Your task to perform on an android device: install app "Instagram" Image 0: 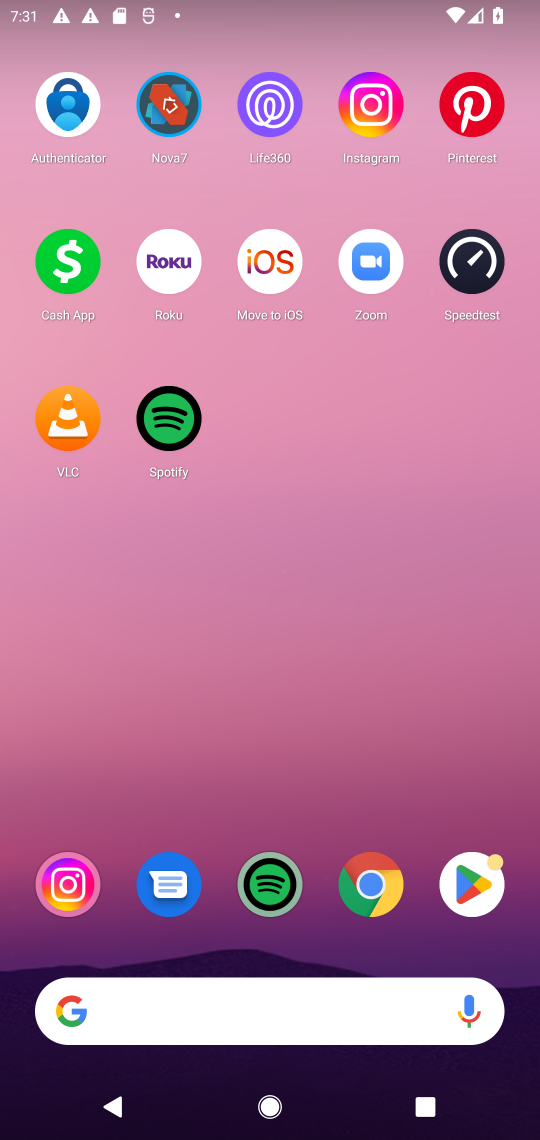
Step 0: press home button
Your task to perform on an android device: install app "Instagram" Image 1: 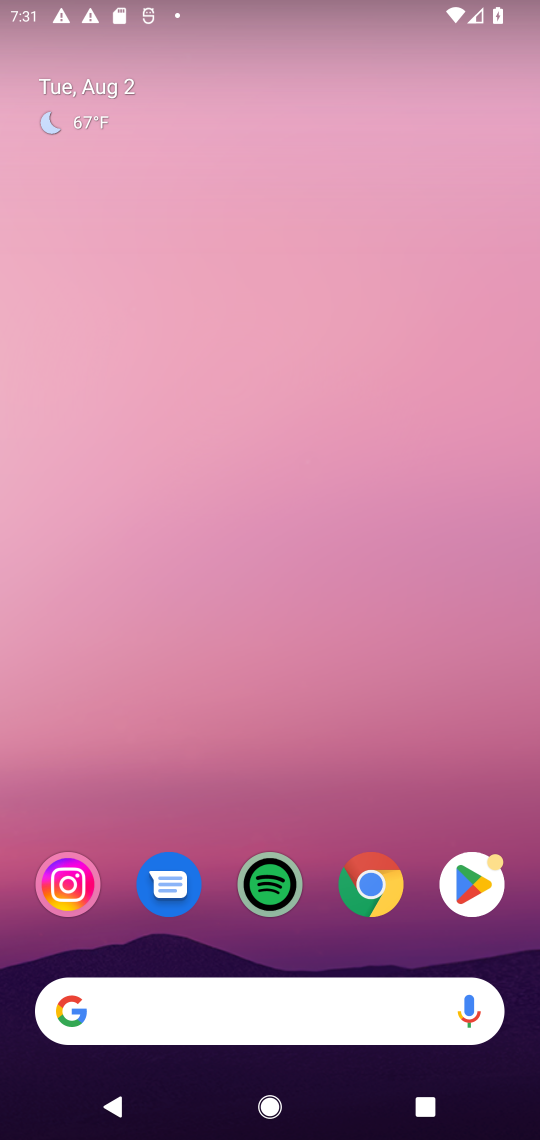
Step 1: click (477, 890)
Your task to perform on an android device: install app "Instagram" Image 2: 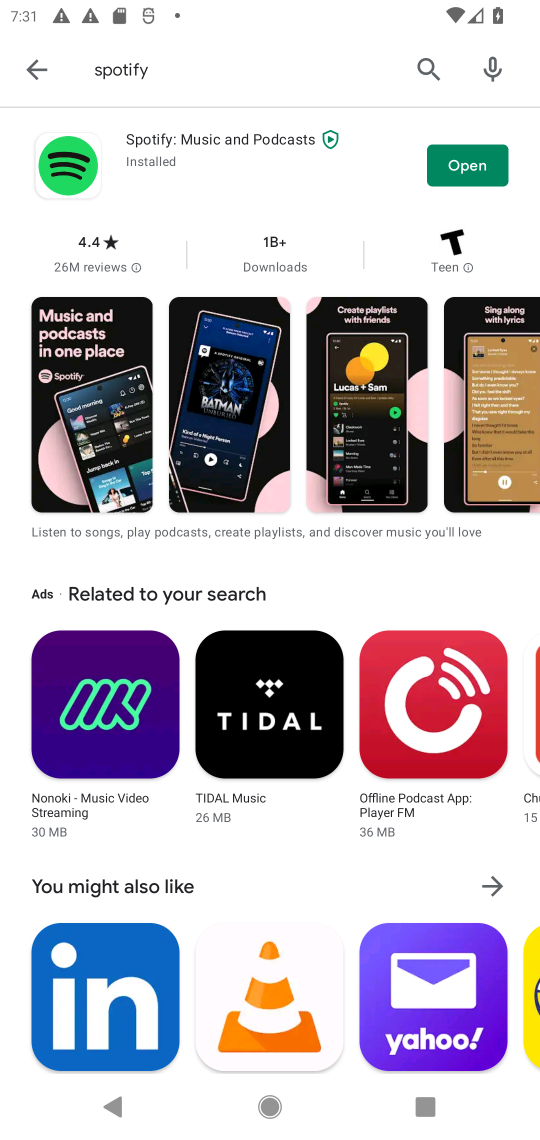
Step 2: click (398, 77)
Your task to perform on an android device: install app "Instagram" Image 3: 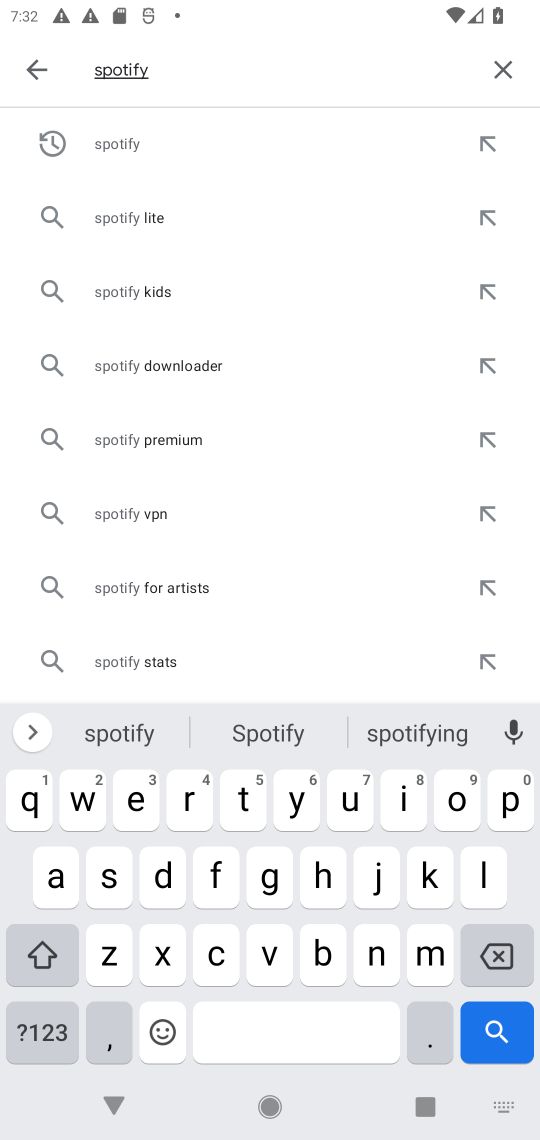
Step 3: click (500, 73)
Your task to perform on an android device: install app "Instagram" Image 4: 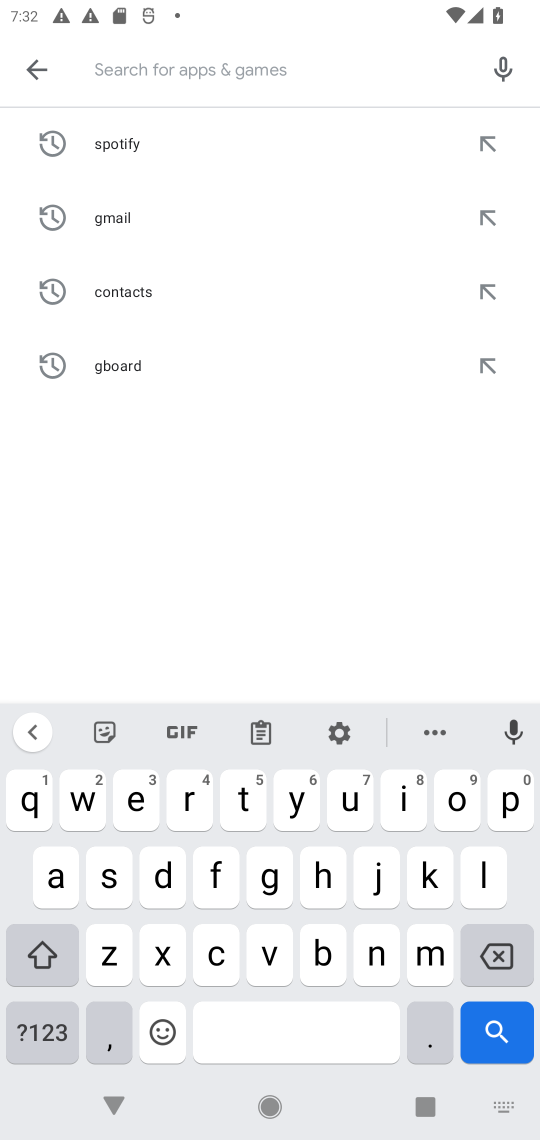
Step 4: click (401, 786)
Your task to perform on an android device: install app "Instagram" Image 5: 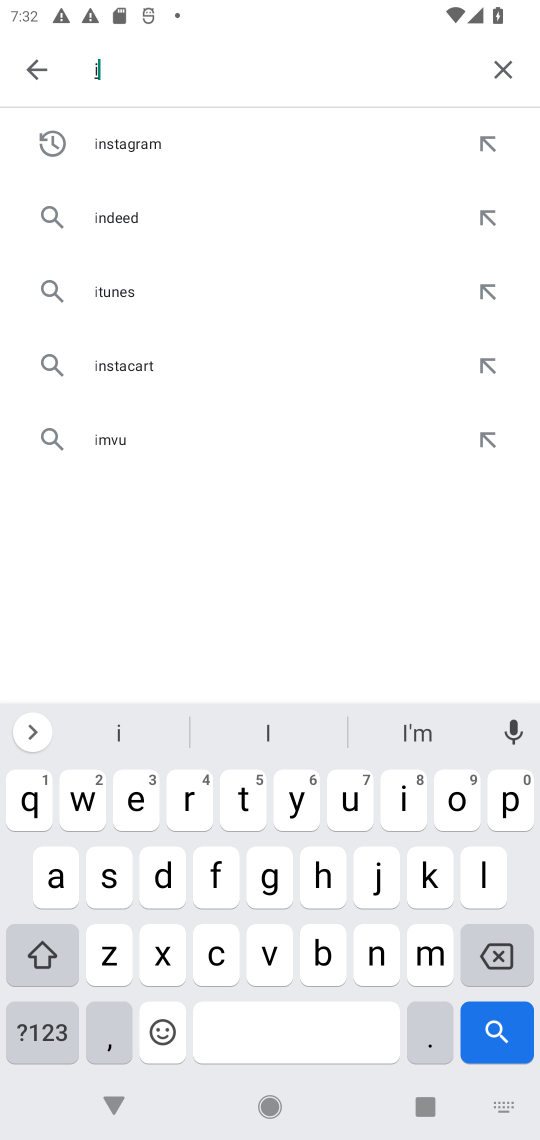
Step 5: click (371, 948)
Your task to perform on an android device: install app "Instagram" Image 6: 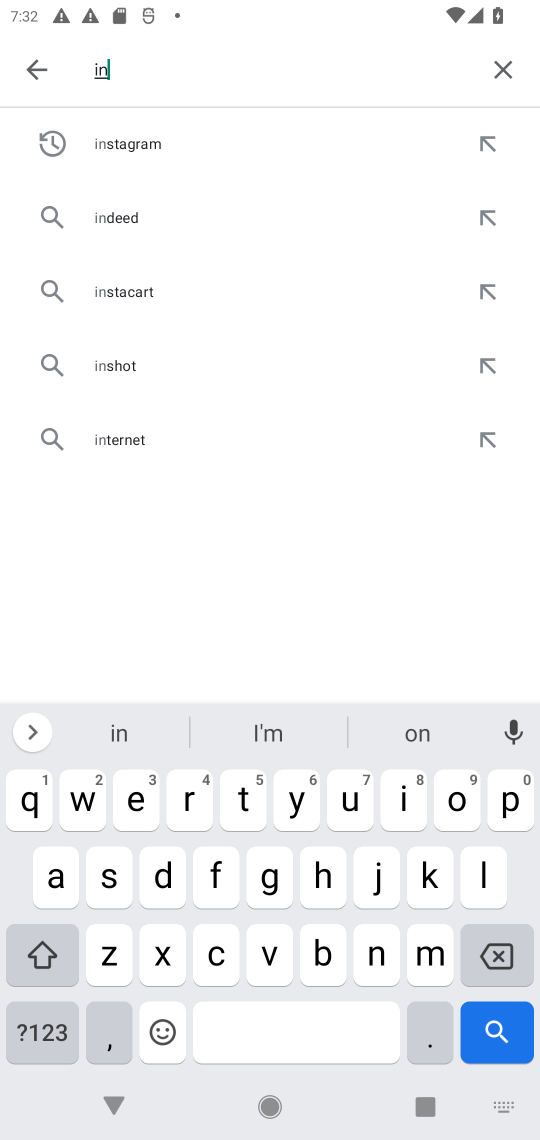
Step 6: click (155, 143)
Your task to perform on an android device: install app "Instagram" Image 7: 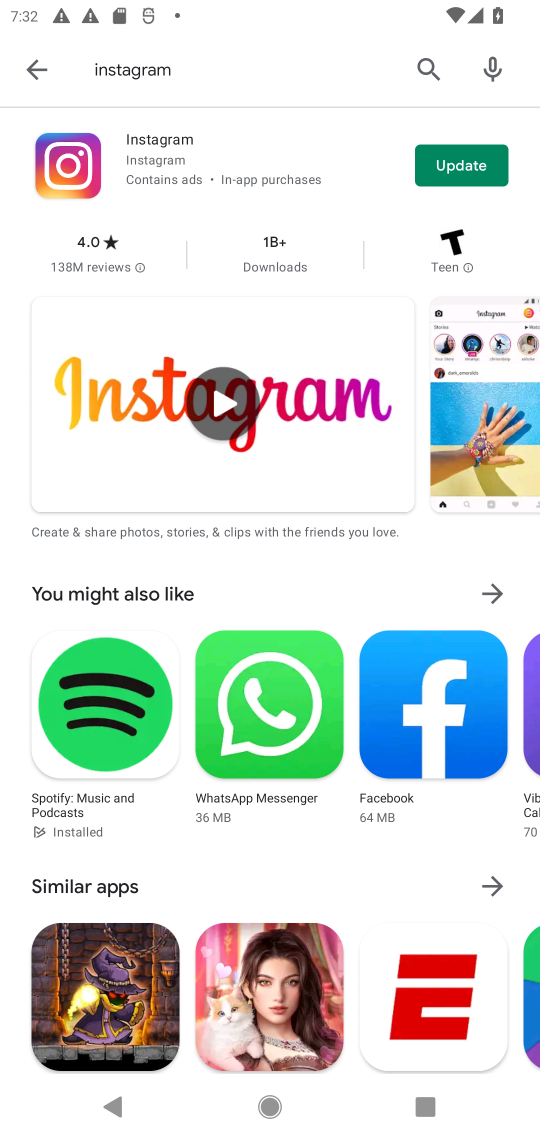
Step 7: click (466, 168)
Your task to perform on an android device: install app "Instagram" Image 8: 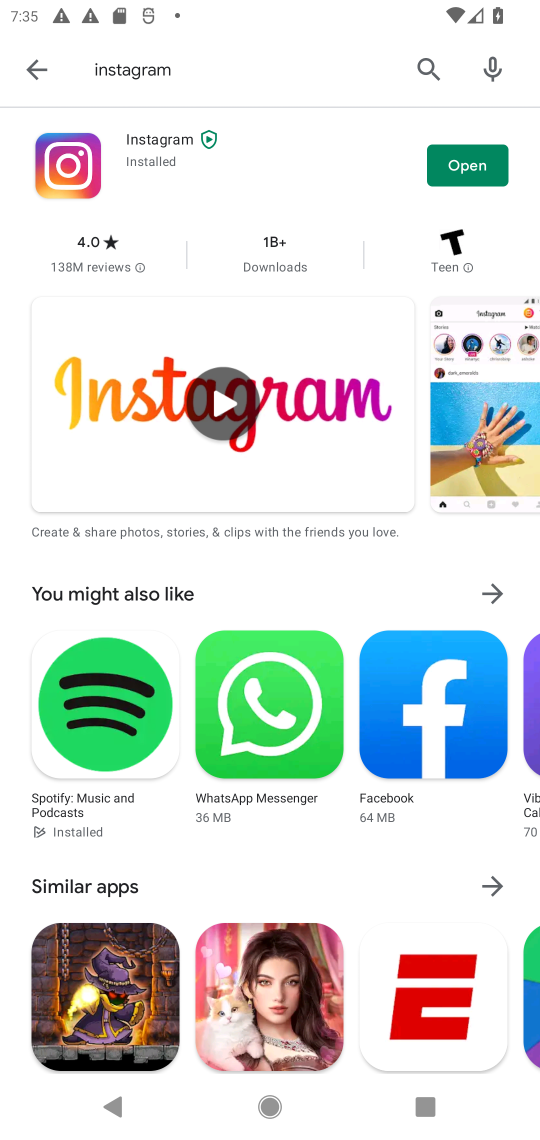
Step 8: task complete